Your task to perform on an android device: all mails in gmail Image 0: 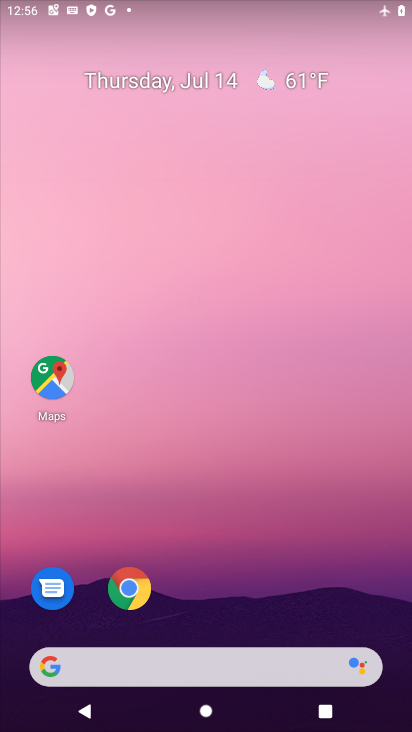
Step 0: drag from (229, 622) to (268, 67)
Your task to perform on an android device: all mails in gmail Image 1: 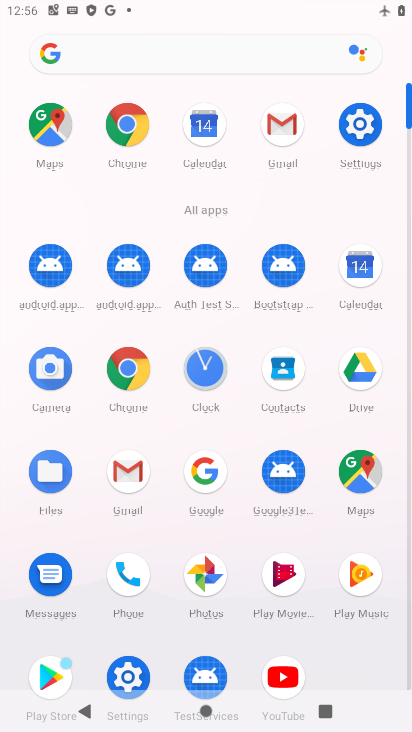
Step 1: click (139, 484)
Your task to perform on an android device: all mails in gmail Image 2: 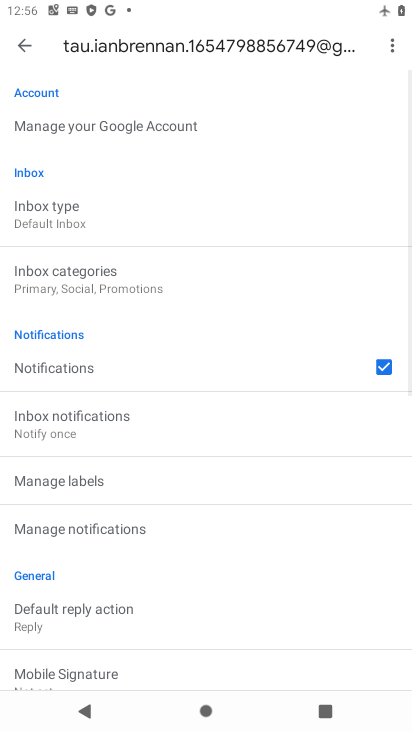
Step 2: click (33, 48)
Your task to perform on an android device: all mails in gmail Image 3: 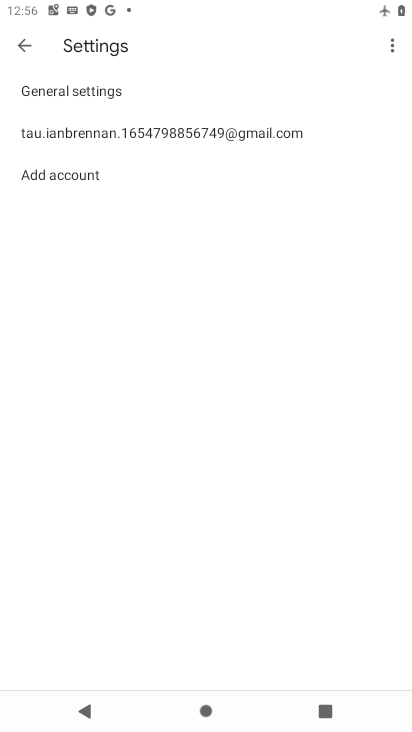
Step 3: click (33, 48)
Your task to perform on an android device: all mails in gmail Image 4: 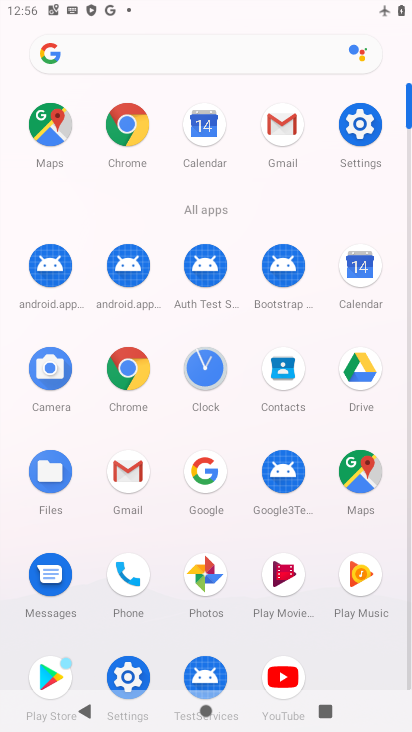
Step 4: click (137, 484)
Your task to perform on an android device: all mails in gmail Image 5: 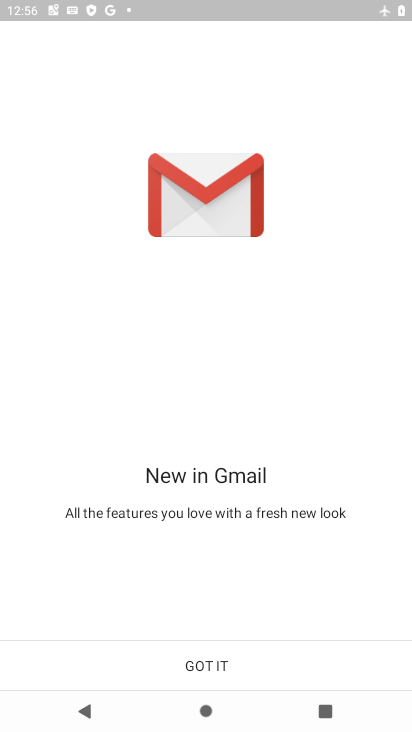
Step 5: click (218, 658)
Your task to perform on an android device: all mails in gmail Image 6: 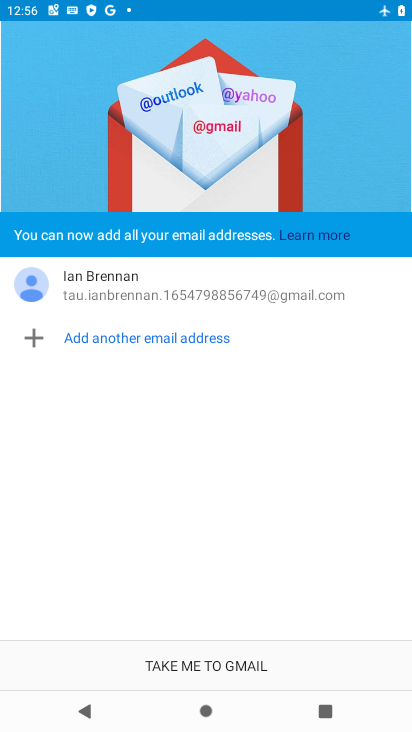
Step 6: click (219, 657)
Your task to perform on an android device: all mails in gmail Image 7: 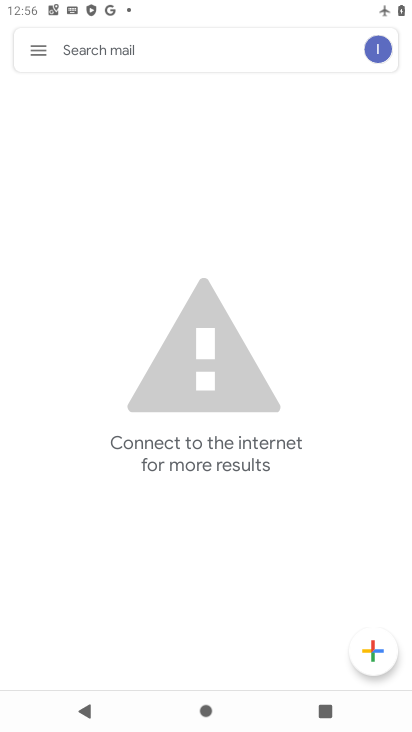
Step 7: click (40, 40)
Your task to perform on an android device: all mails in gmail Image 8: 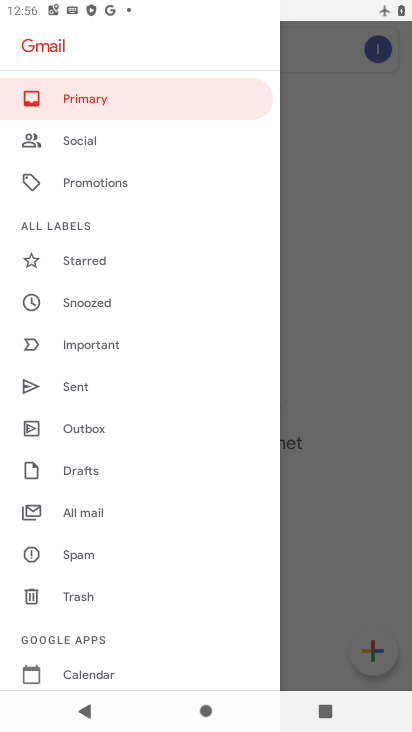
Step 8: click (96, 520)
Your task to perform on an android device: all mails in gmail Image 9: 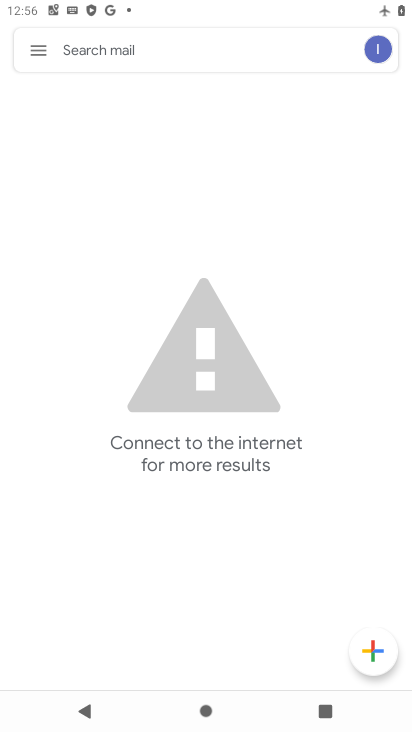
Step 9: task complete